Your task to perform on an android device: empty trash in the gmail app Image 0: 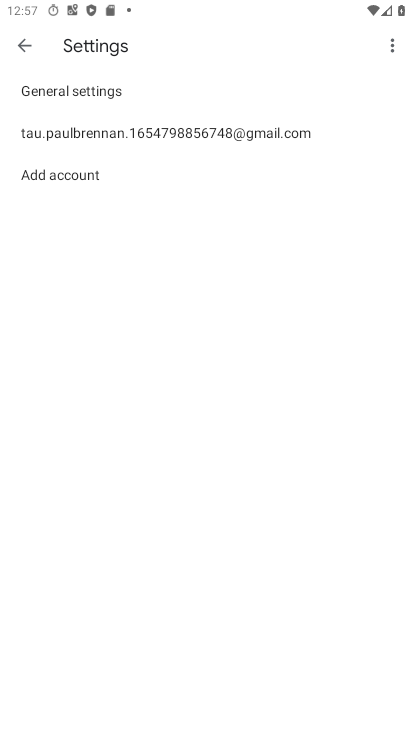
Step 0: press home button
Your task to perform on an android device: empty trash in the gmail app Image 1: 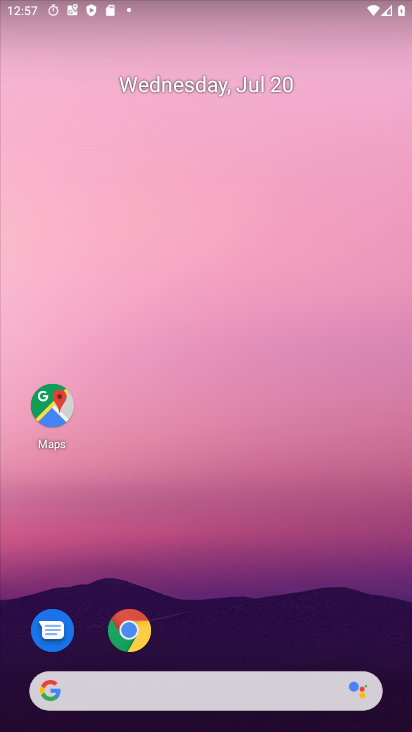
Step 1: drag from (290, 573) to (302, 148)
Your task to perform on an android device: empty trash in the gmail app Image 2: 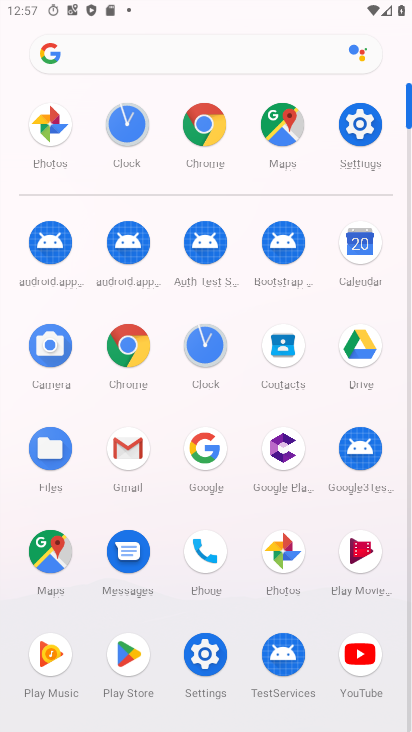
Step 2: click (126, 461)
Your task to perform on an android device: empty trash in the gmail app Image 3: 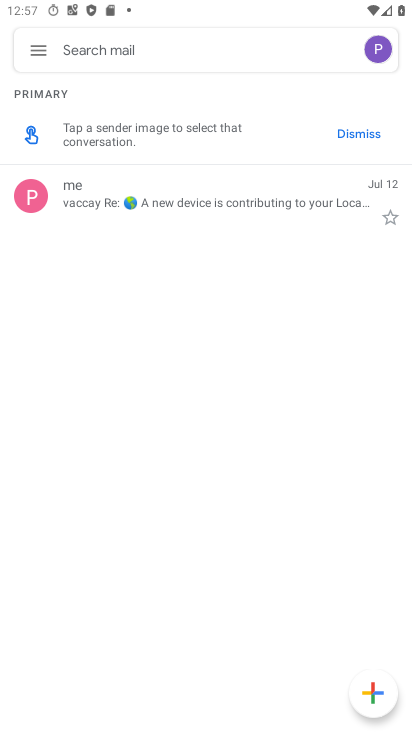
Step 3: click (31, 61)
Your task to perform on an android device: empty trash in the gmail app Image 4: 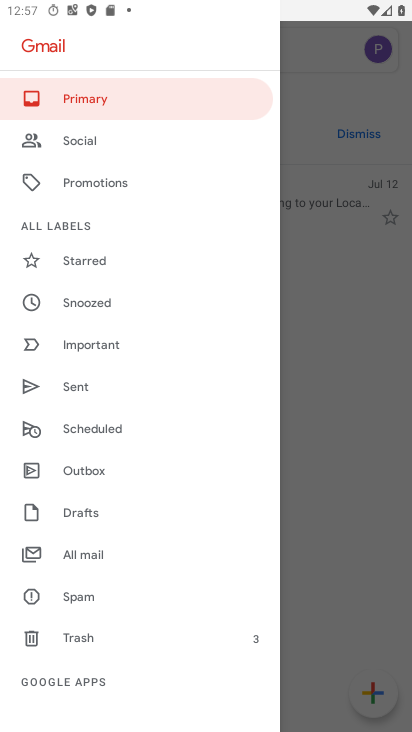
Step 4: click (143, 633)
Your task to perform on an android device: empty trash in the gmail app Image 5: 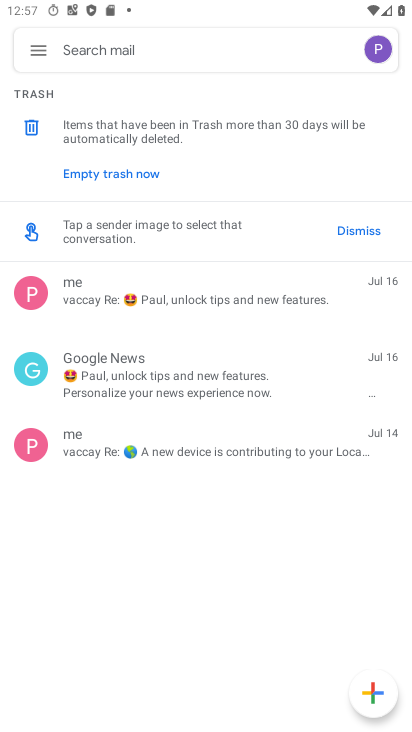
Step 5: click (119, 161)
Your task to perform on an android device: empty trash in the gmail app Image 6: 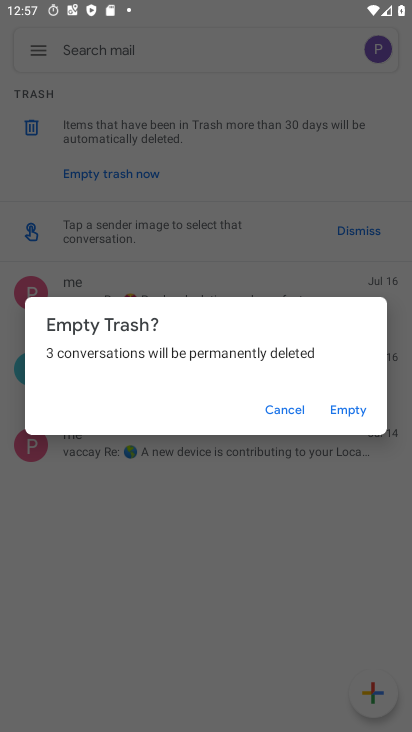
Step 6: click (353, 408)
Your task to perform on an android device: empty trash in the gmail app Image 7: 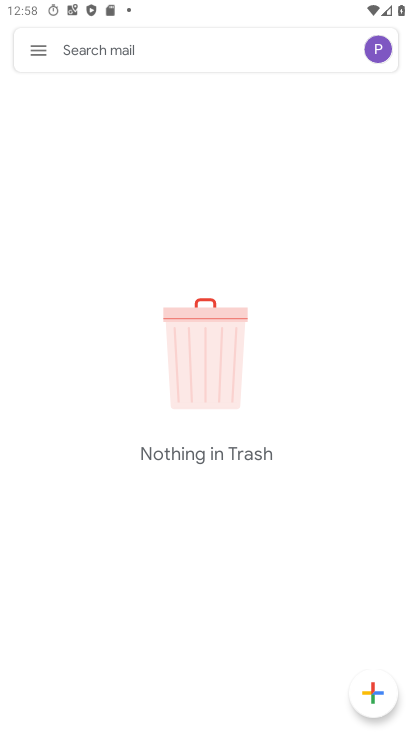
Step 7: task complete